Your task to perform on an android device: Open the calendar app, open the side menu, and click the "Day" option Image 0: 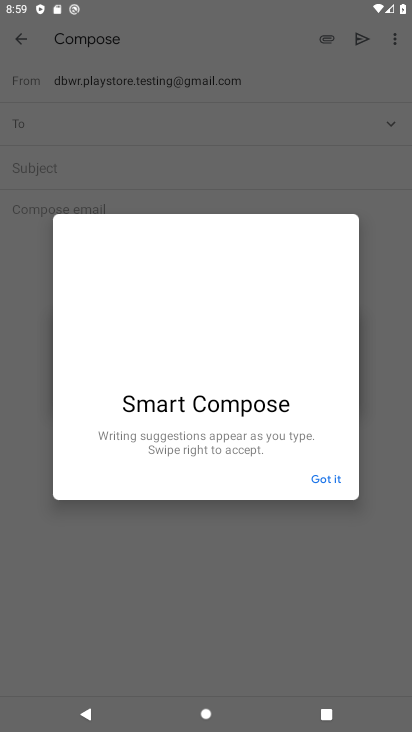
Step 0: press home button
Your task to perform on an android device: Open the calendar app, open the side menu, and click the "Day" option Image 1: 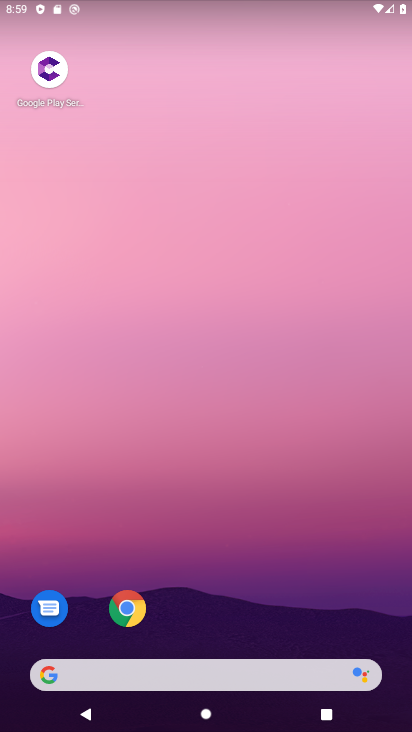
Step 1: drag from (322, 431) to (291, 84)
Your task to perform on an android device: Open the calendar app, open the side menu, and click the "Day" option Image 2: 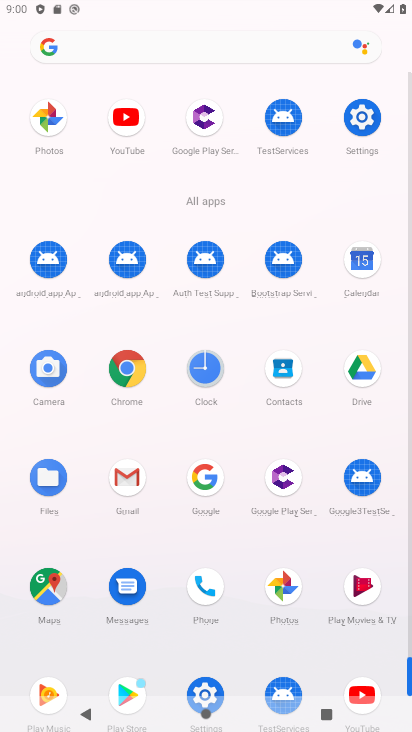
Step 2: click (372, 266)
Your task to perform on an android device: Open the calendar app, open the side menu, and click the "Day" option Image 3: 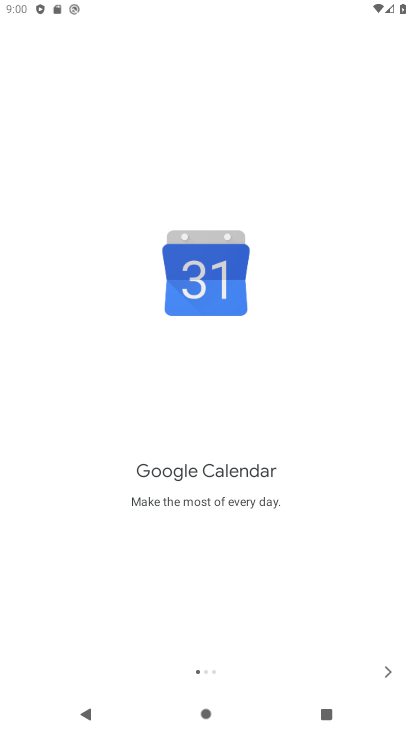
Step 3: click (382, 675)
Your task to perform on an android device: Open the calendar app, open the side menu, and click the "Day" option Image 4: 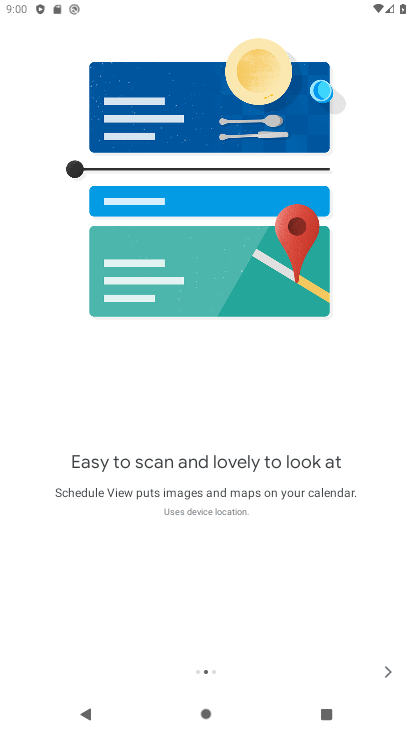
Step 4: click (399, 663)
Your task to perform on an android device: Open the calendar app, open the side menu, and click the "Day" option Image 5: 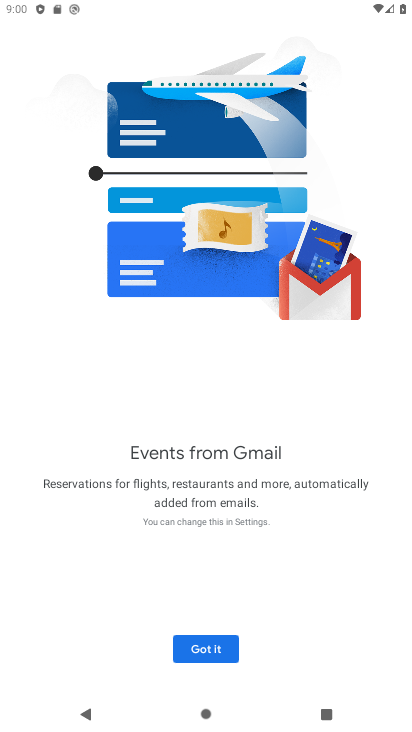
Step 5: click (193, 651)
Your task to perform on an android device: Open the calendar app, open the side menu, and click the "Day" option Image 6: 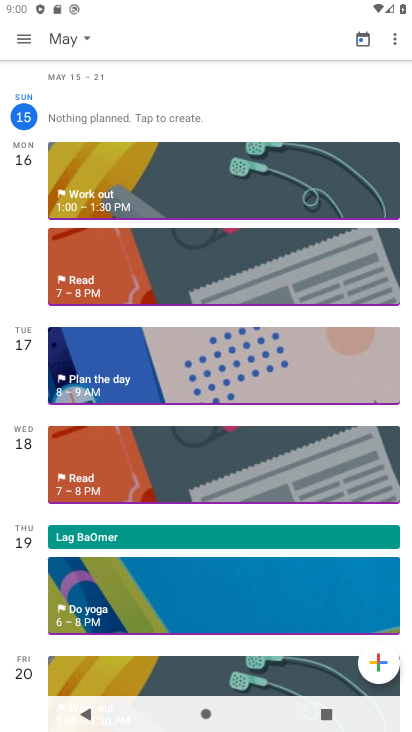
Step 6: click (13, 35)
Your task to perform on an android device: Open the calendar app, open the side menu, and click the "Day" option Image 7: 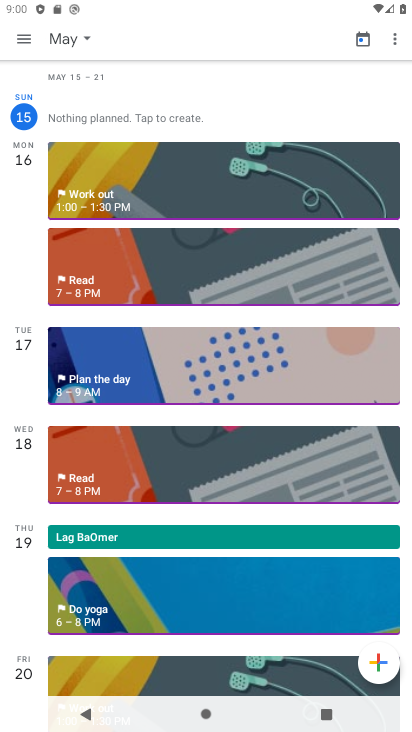
Step 7: click (22, 43)
Your task to perform on an android device: Open the calendar app, open the side menu, and click the "Day" option Image 8: 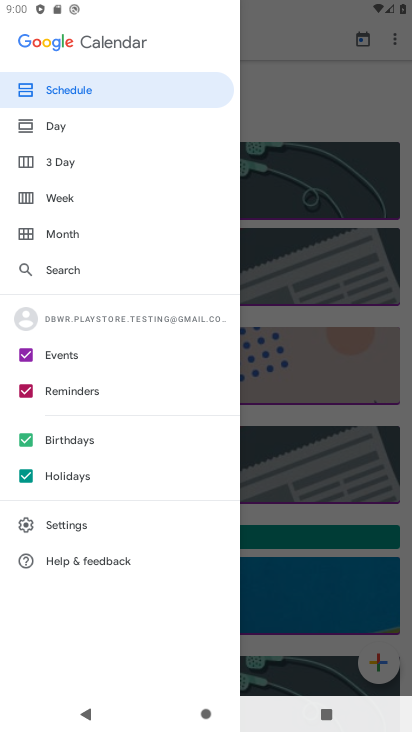
Step 8: click (52, 126)
Your task to perform on an android device: Open the calendar app, open the side menu, and click the "Day" option Image 9: 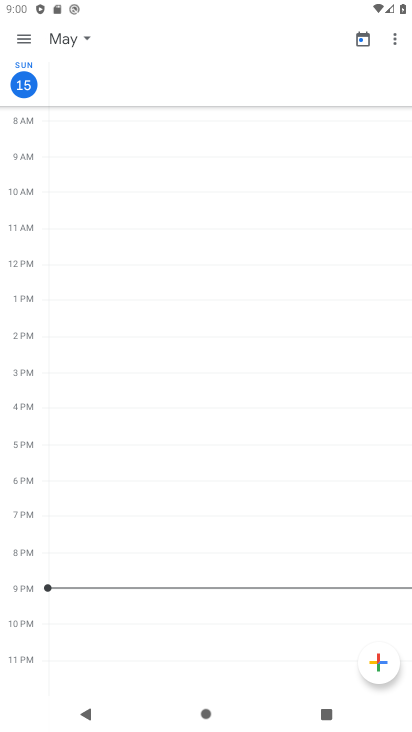
Step 9: task complete